Your task to perform on an android device: Open maps Image 0: 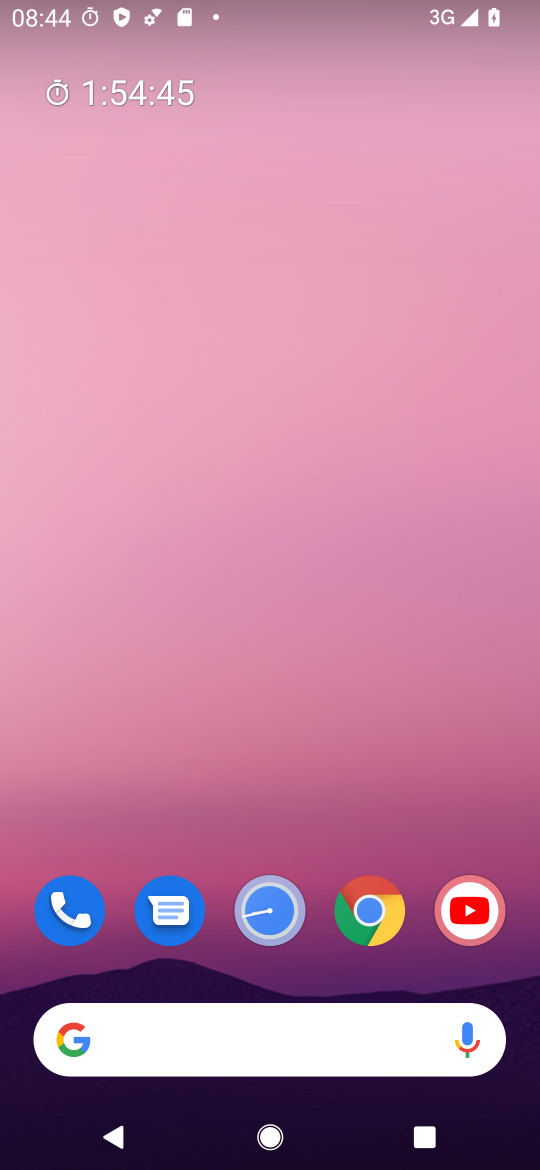
Step 0: drag from (338, 1044) to (149, 19)
Your task to perform on an android device: Open maps Image 1: 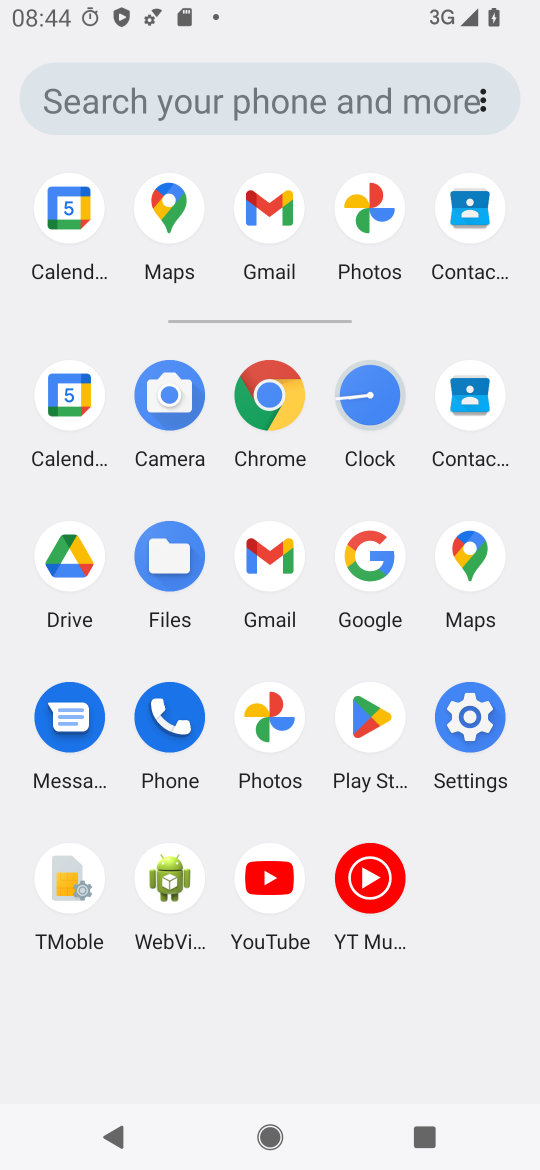
Step 1: click (471, 555)
Your task to perform on an android device: Open maps Image 2: 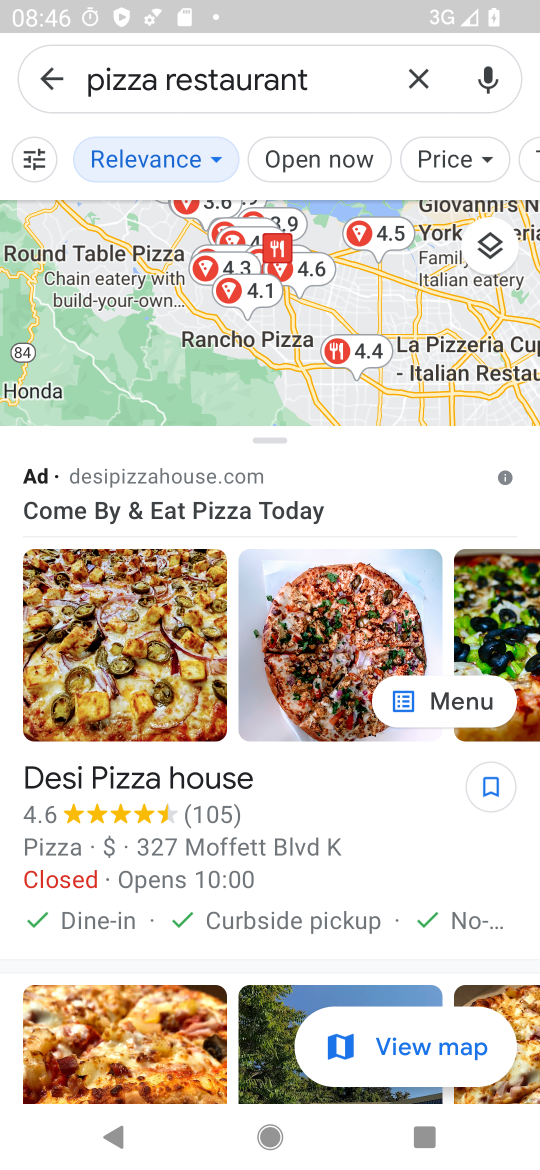
Step 2: task complete